Your task to perform on an android device: Add "razer blade" to the cart on walmart.com, then select checkout. Image 0: 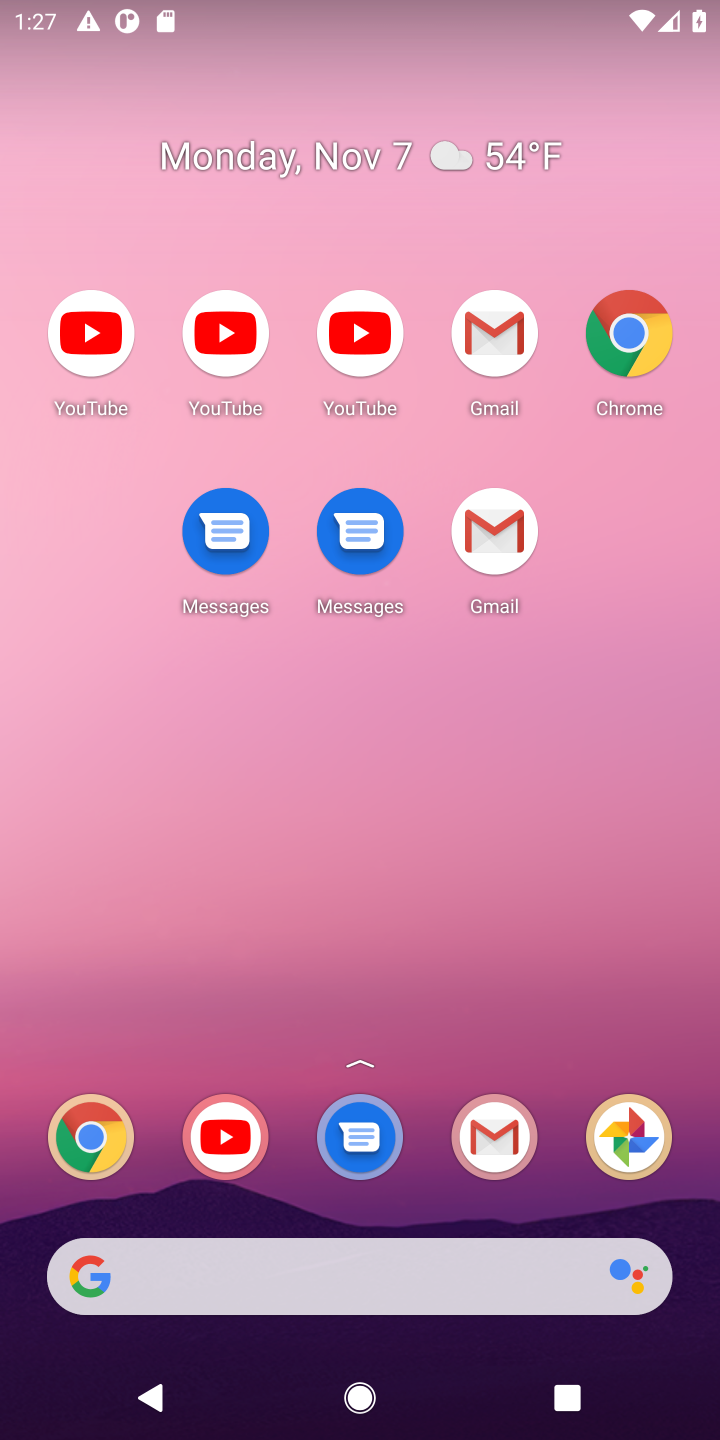
Step 0: drag from (393, 147) to (550, 259)
Your task to perform on an android device: Add "razer blade" to the cart on walmart.com, then select checkout. Image 1: 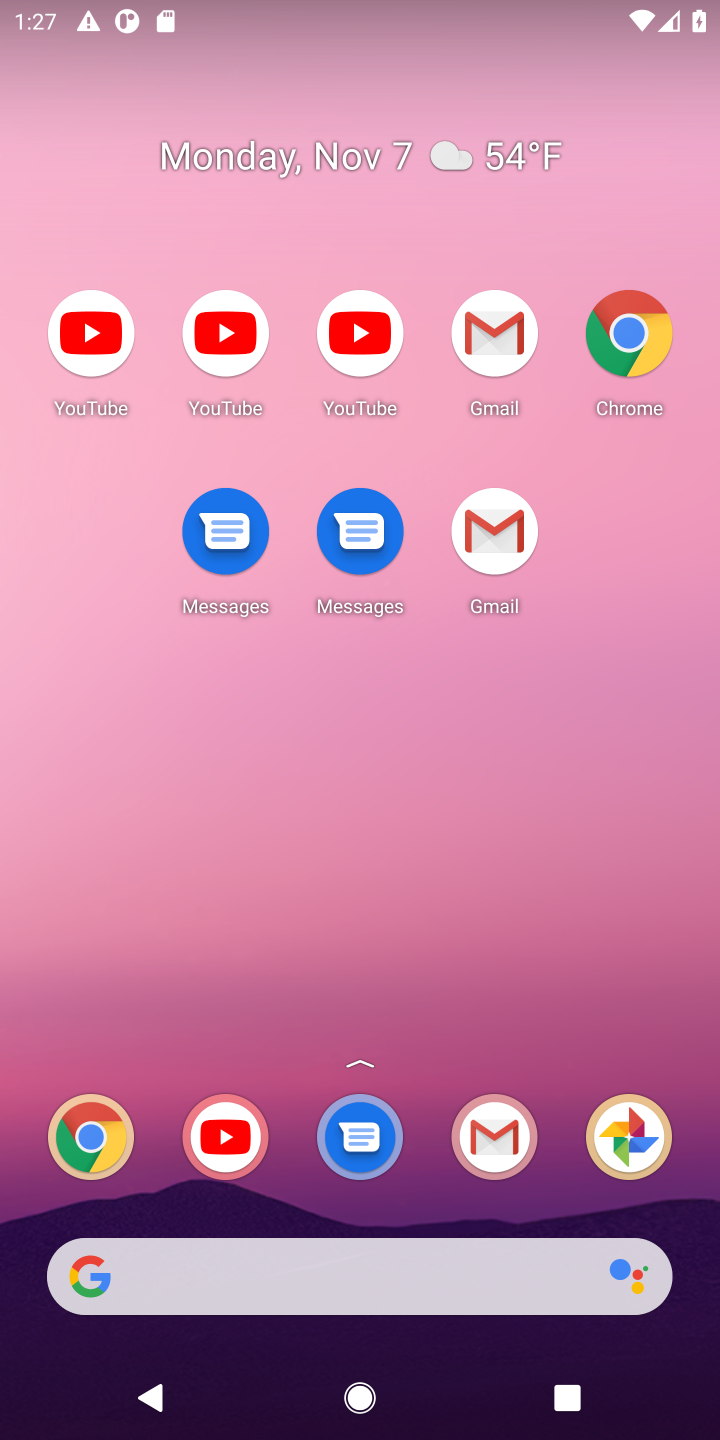
Step 1: drag from (423, 1213) to (378, 201)
Your task to perform on an android device: Add "razer blade" to the cart on walmart.com, then select checkout. Image 2: 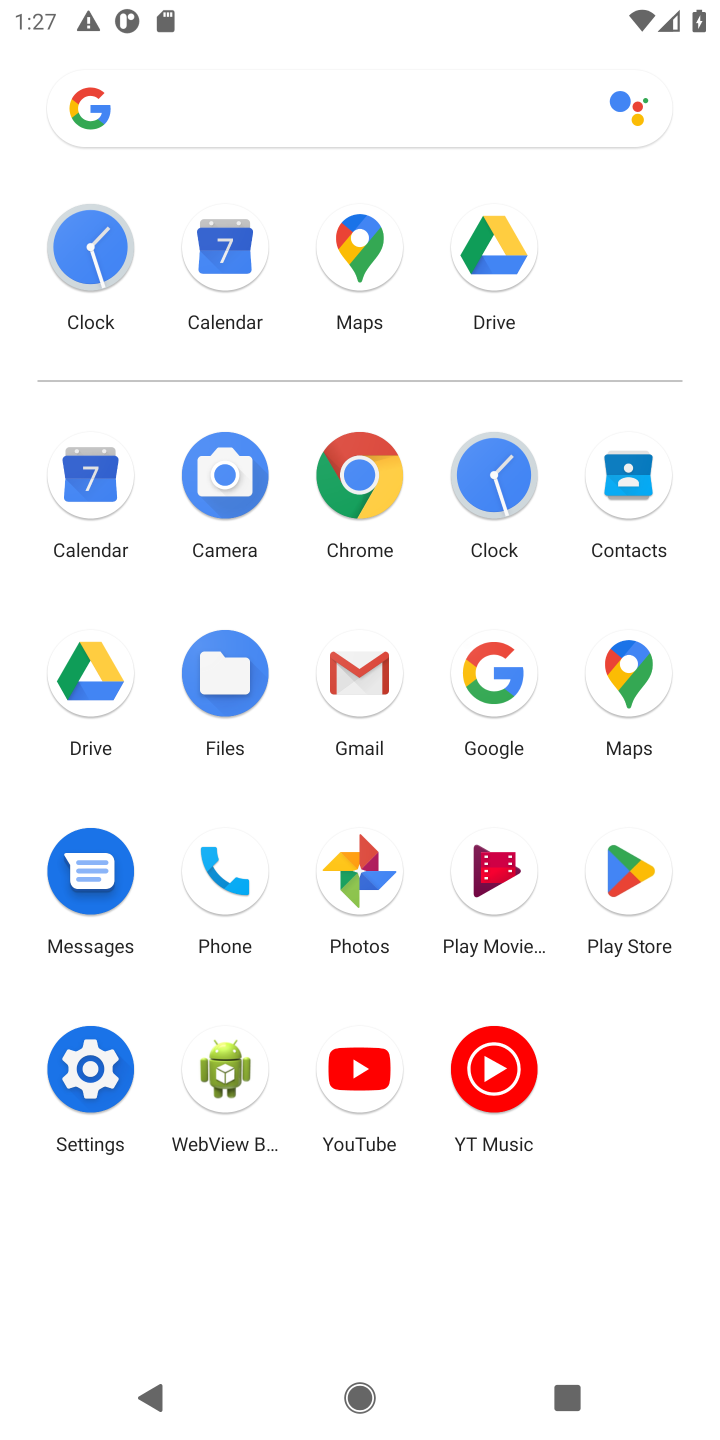
Step 2: click (364, 465)
Your task to perform on an android device: Add "razer blade" to the cart on walmart.com, then select checkout. Image 3: 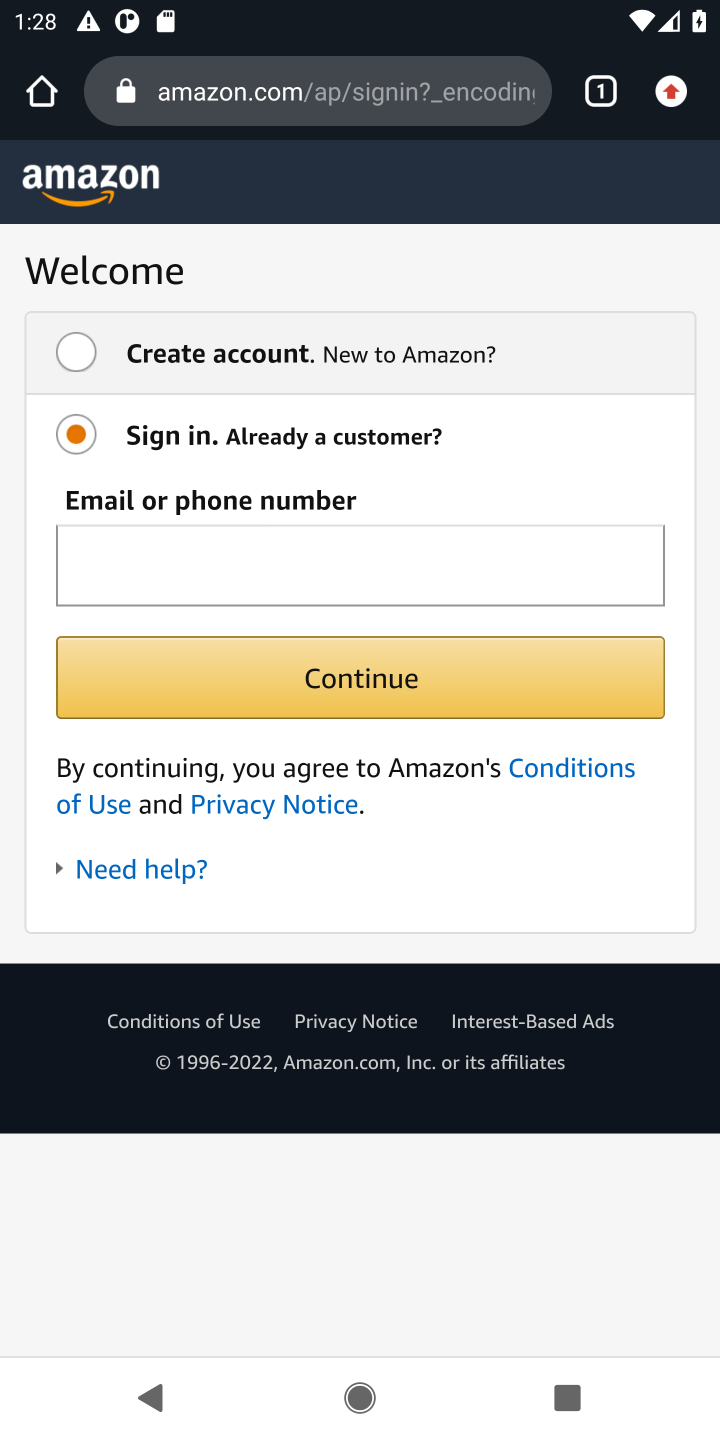
Step 3: click (303, 77)
Your task to perform on an android device: Add "razer blade" to the cart on walmart.com, then select checkout. Image 4: 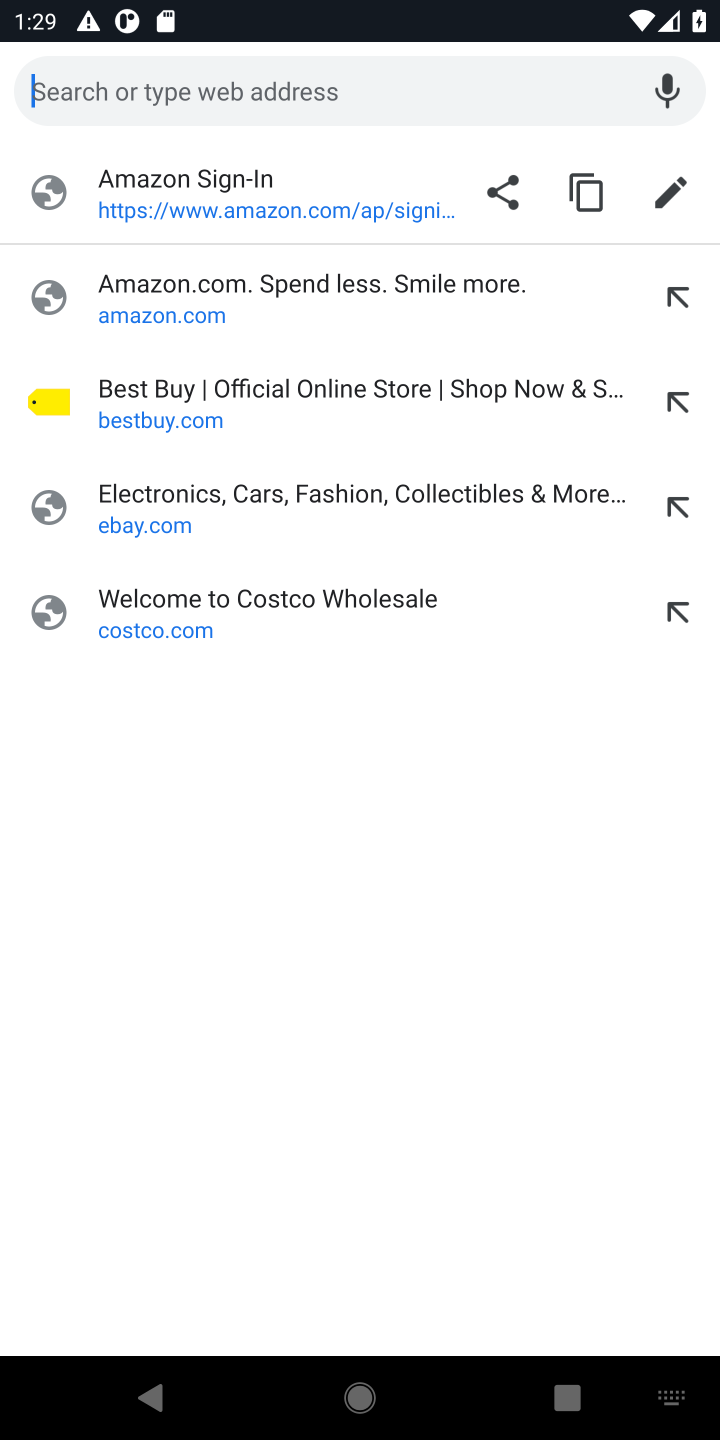
Step 4: type "walmart.com"
Your task to perform on an android device: Add "razer blade" to the cart on walmart.com, then select checkout. Image 5: 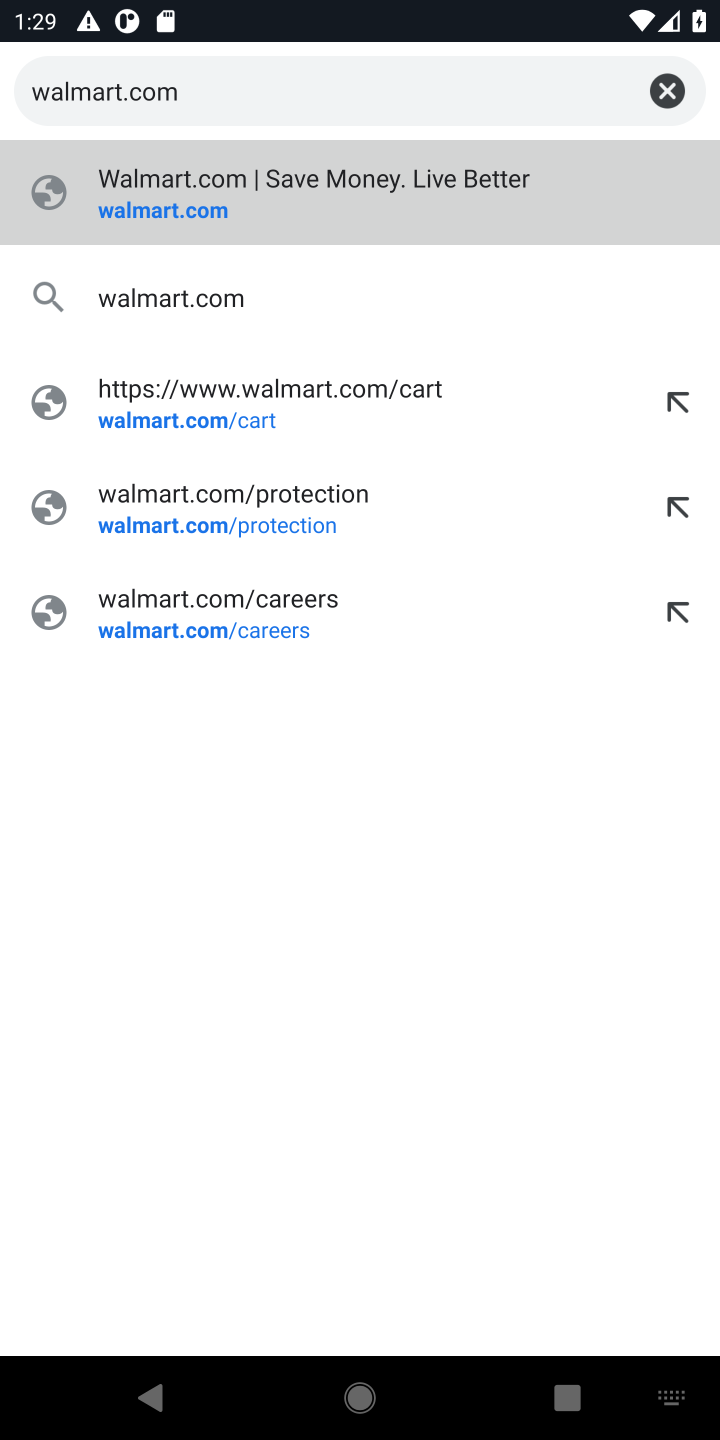
Step 5: press enter
Your task to perform on an android device: Add "razer blade" to the cart on walmart.com, then select checkout. Image 6: 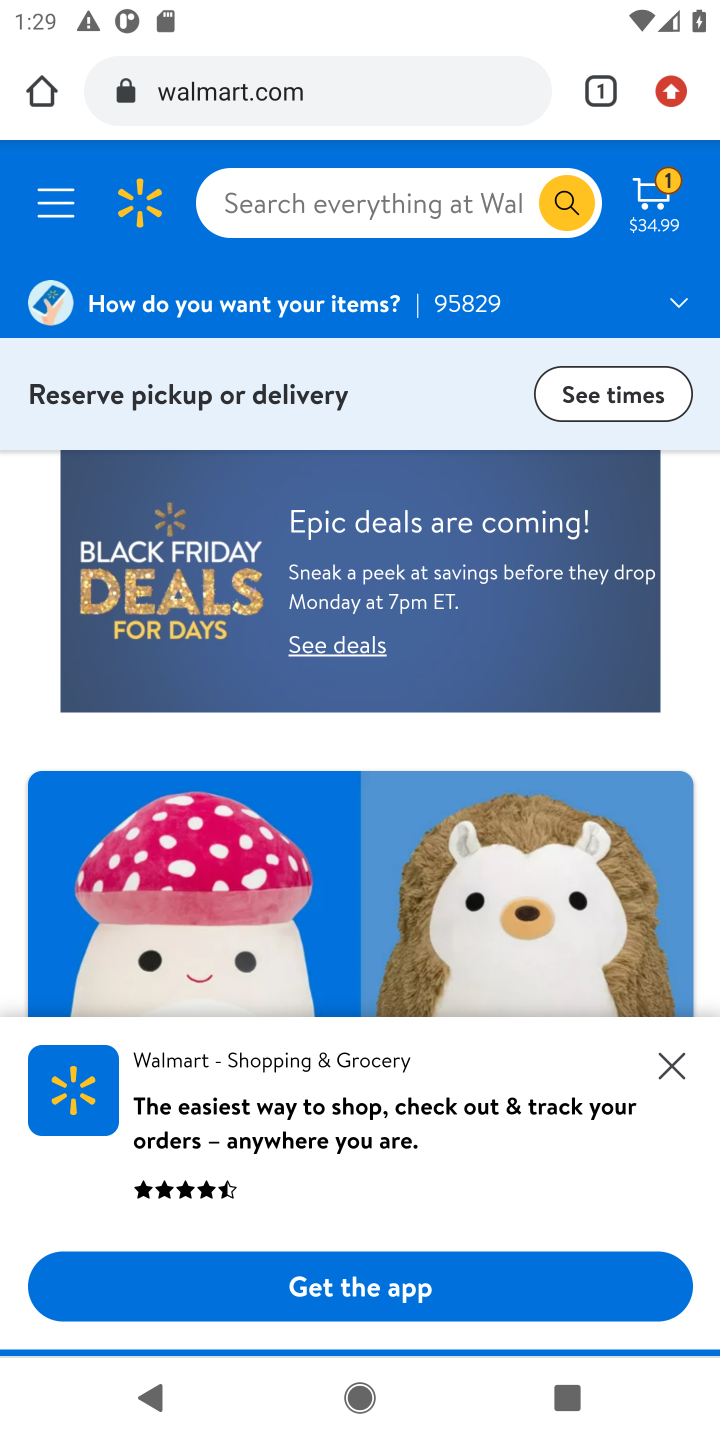
Step 6: click (418, 195)
Your task to perform on an android device: Add "razer blade" to the cart on walmart.com, then select checkout. Image 7: 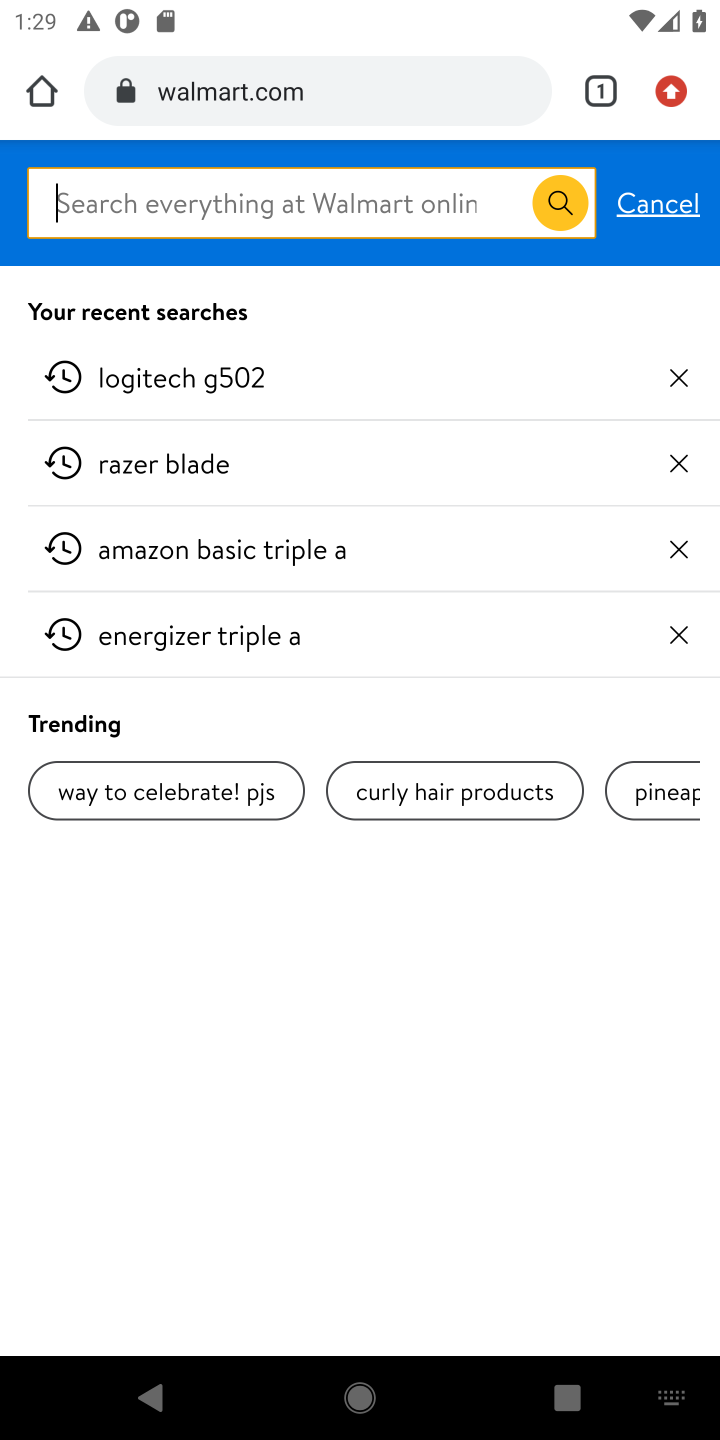
Step 7: type "razer blade"
Your task to perform on an android device: Add "razer blade" to the cart on walmart.com, then select checkout. Image 8: 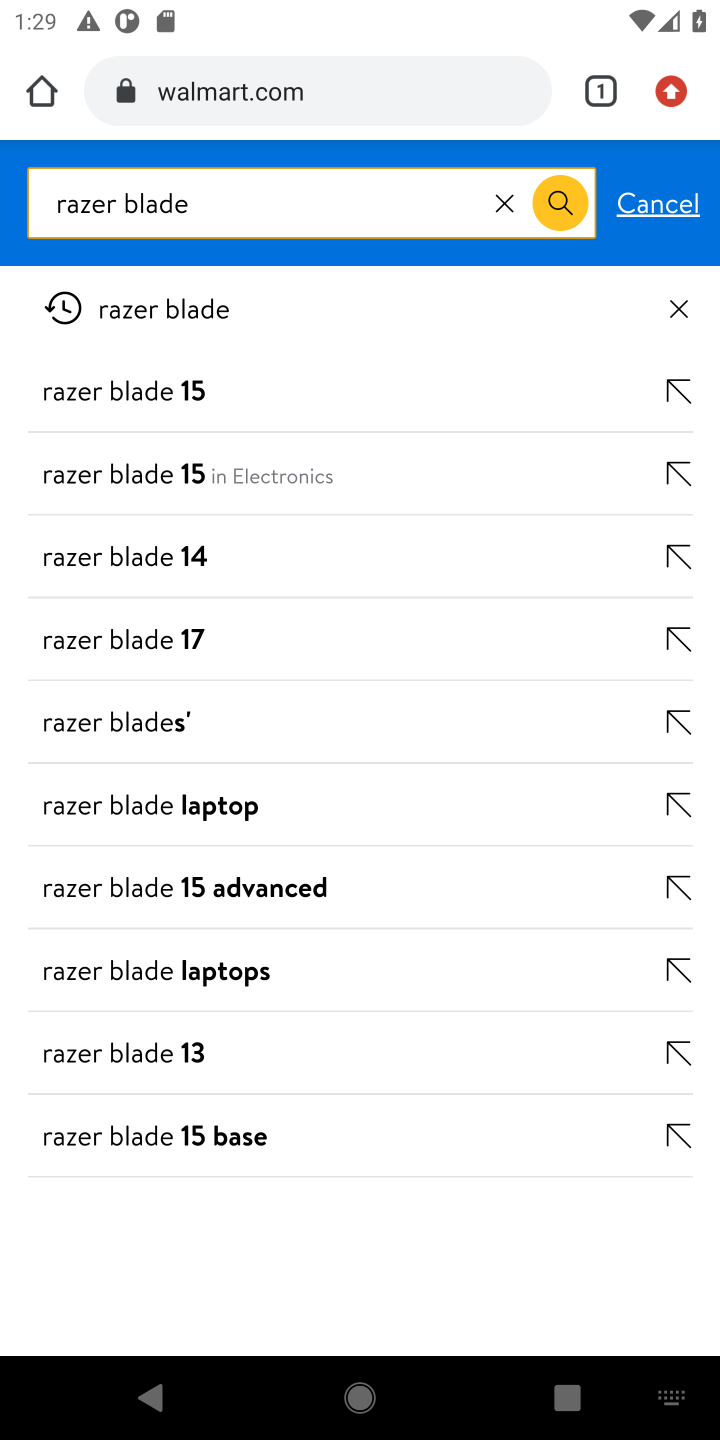
Step 8: press enter
Your task to perform on an android device: Add "razer blade" to the cart on walmart.com, then select checkout. Image 9: 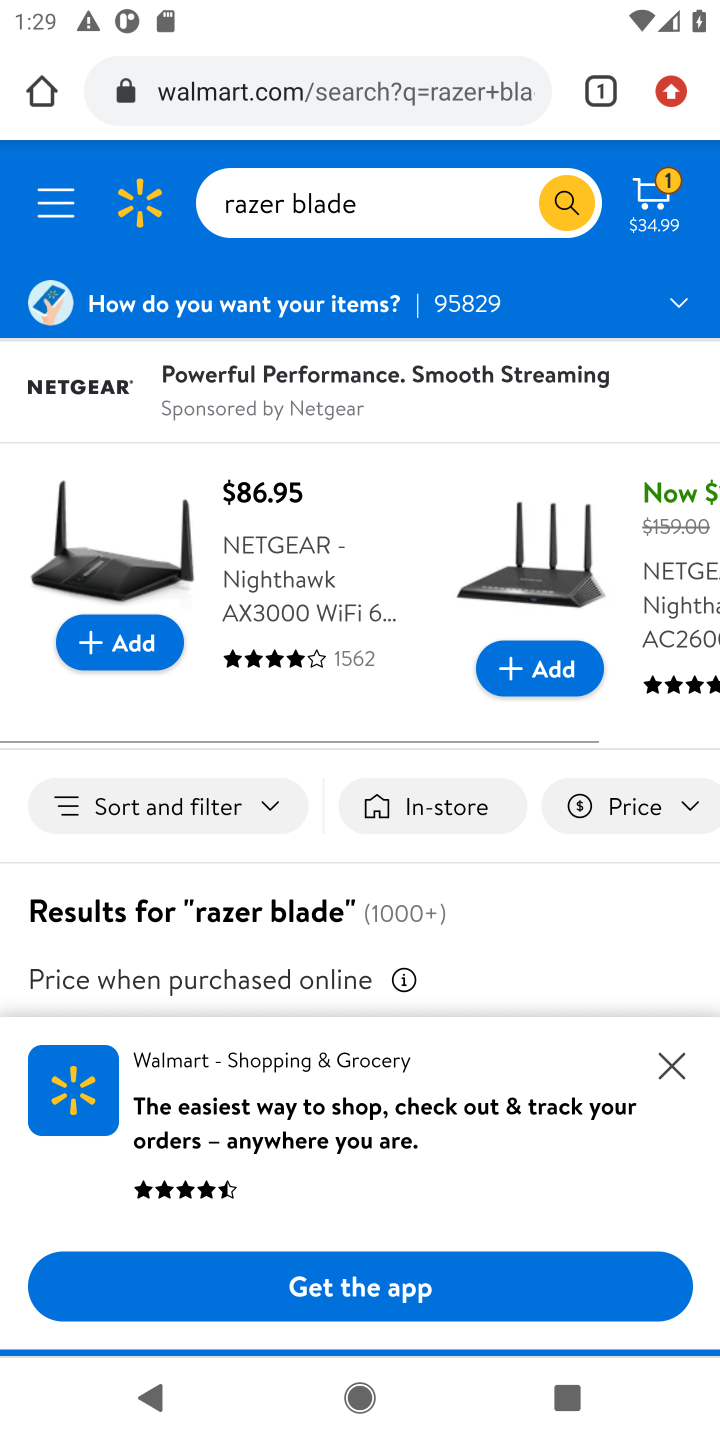
Step 9: task complete